Your task to perform on an android device: What's the weather going to be tomorrow? Image 0: 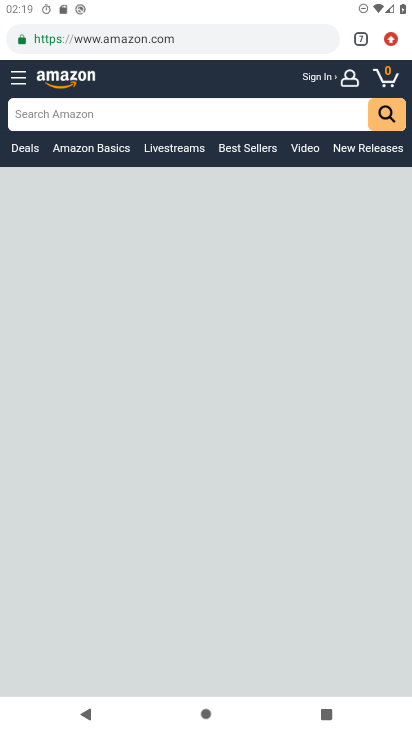
Step 0: press home button
Your task to perform on an android device: What's the weather going to be tomorrow? Image 1: 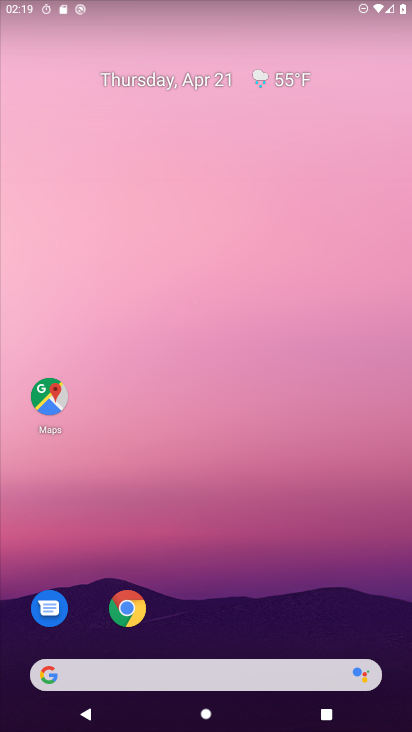
Step 1: click (127, 612)
Your task to perform on an android device: What's the weather going to be tomorrow? Image 2: 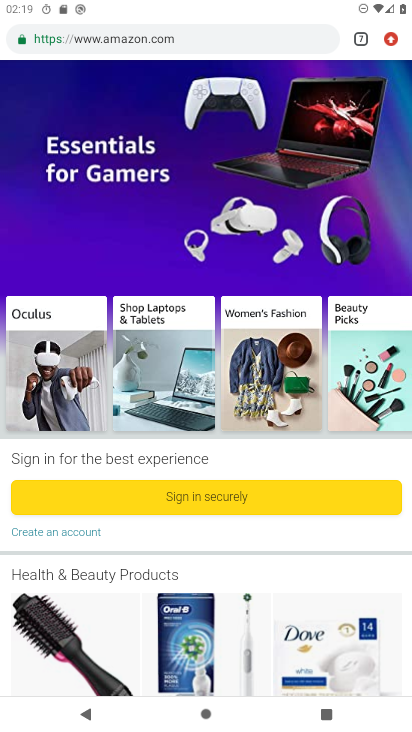
Step 2: click (358, 39)
Your task to perform on an android device: What's the weather going to be tomorrow? Image 3: 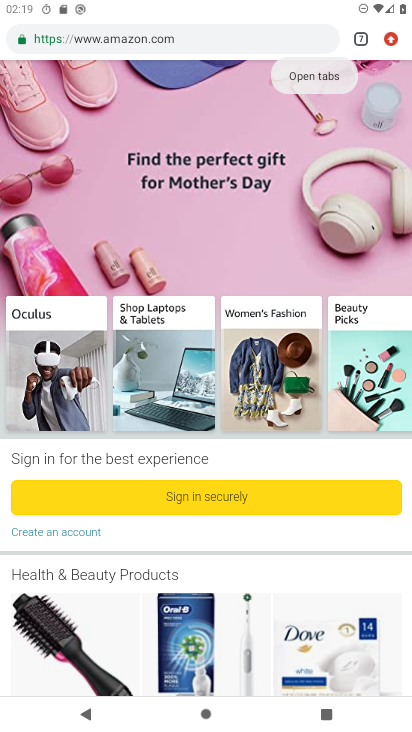
Step 3: click (361, 44)
Your task to perform on an android device: What's the weather going to be tomorrow? Image 4: 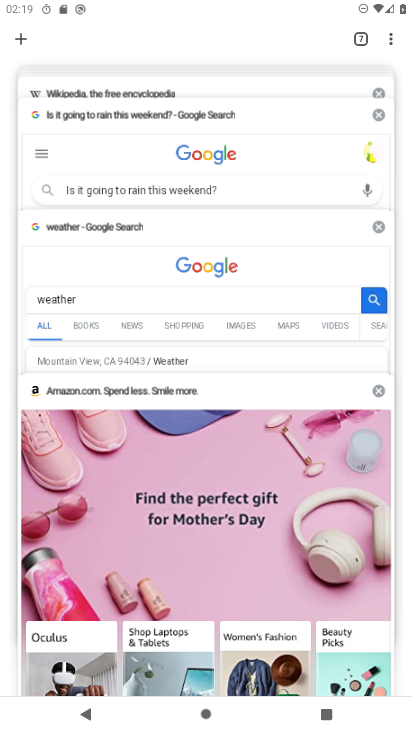
Step 4: click (18, 37)
Your task to perform on an android device: What's the weather going to be tomorrow? Image 5: 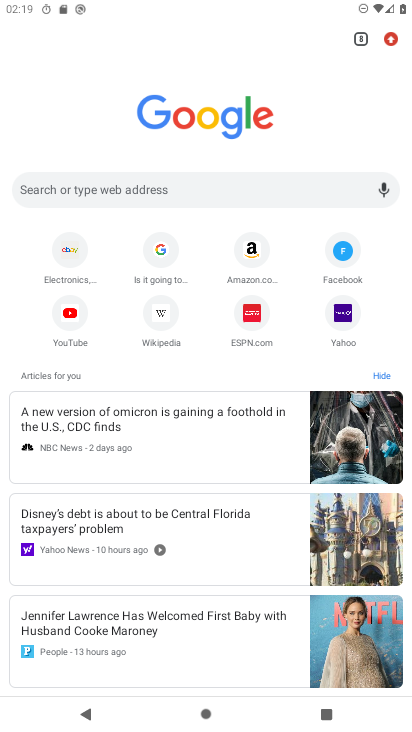
Step 5: click (89, 183)
Your task to perform on an android device: What's the weather going to be tomorrow? Image 6: 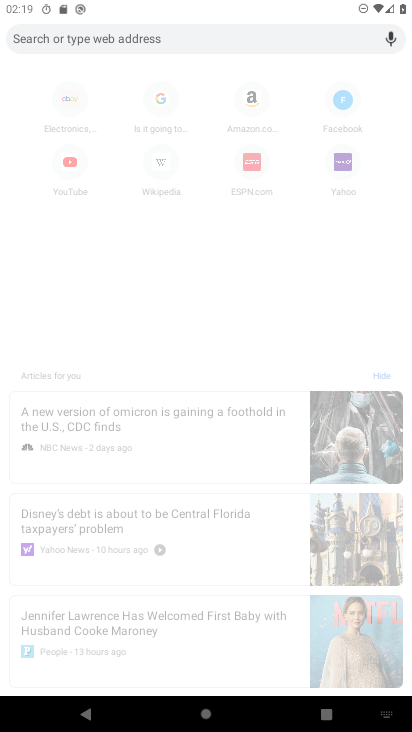
Step 6: type "whats the weather going to be tomorrow"
Your task to perform on an android device: What's the weather going to be tomorrow? Image 7: 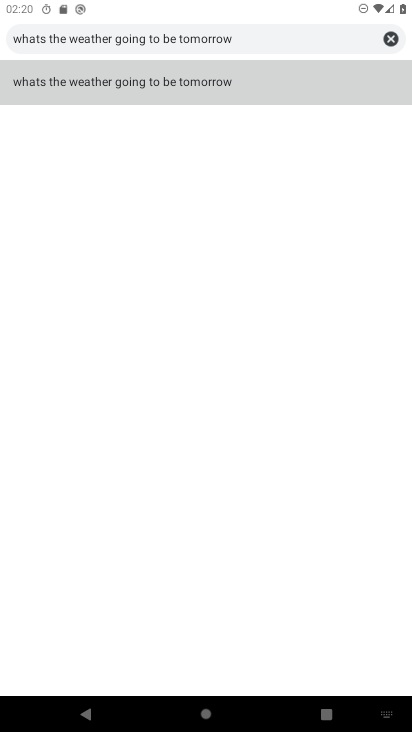
Step 7: click (42, 82)
Your task to perform on an android device: What's the weather going to be tomorrow? Image 8: 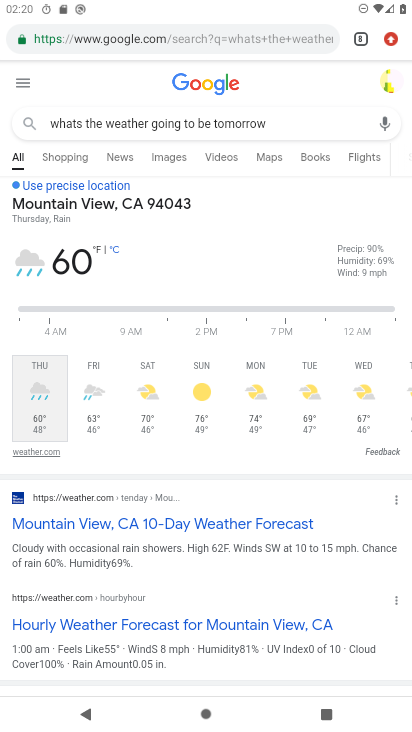
Step 8: task complete